Your task to perform on an android device: Open maps Image 0: 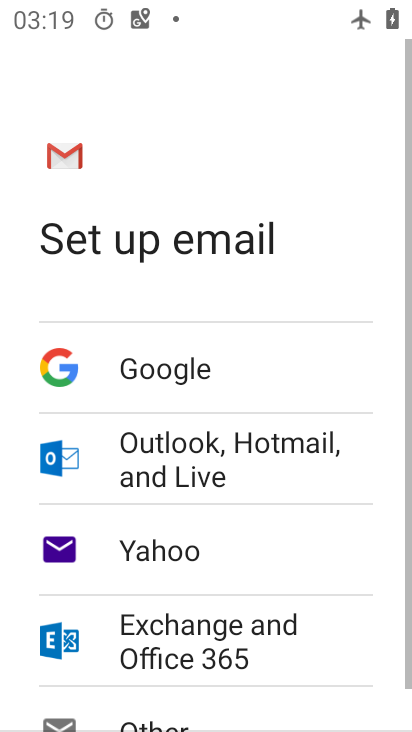
Step 0: press home button
Your task to perform on an android device: Open maps Image 1: 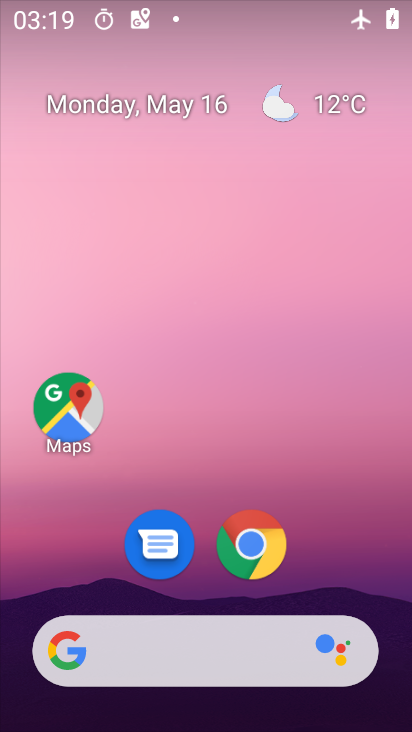
Step 1: drag from (205, 724) to (199, 126)
Your task to perform on an android device: Open maps Image 2: 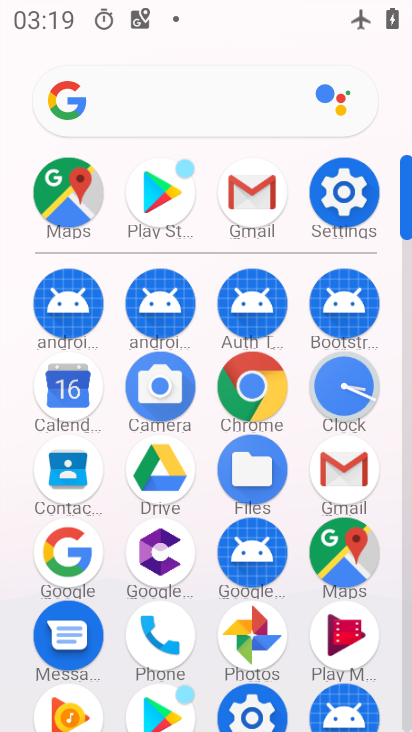
Step 2: click (62, 202)
Your task to perform on an android device: Open maps Image 3: 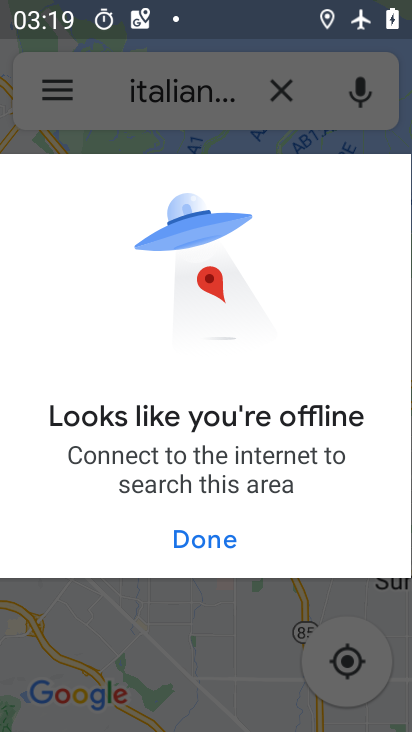
Step 3: click (206, 543)
Your task to perform on an android device: Open maps Image 4: 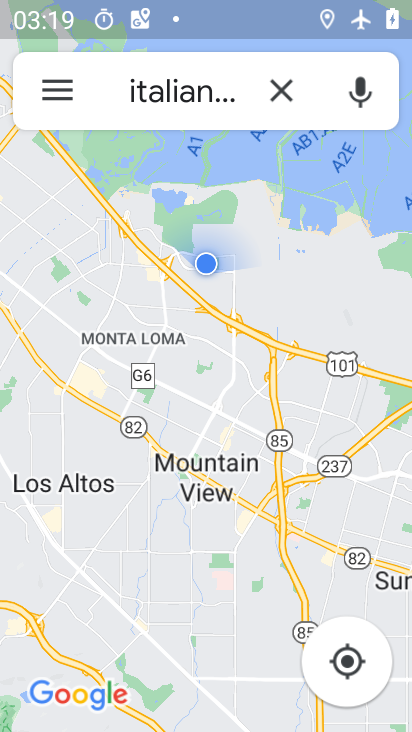
Step 4: task complete